Your task to perform on an android device: Search for Mexican restaurants on Maps Image 0: 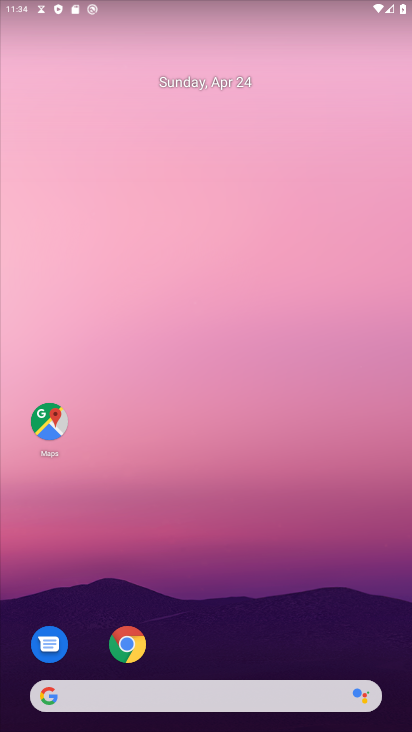
Step 0: click (50, 426)
Your task to perform on an android device: Search for Mexican restaurants on Maps Image 1: 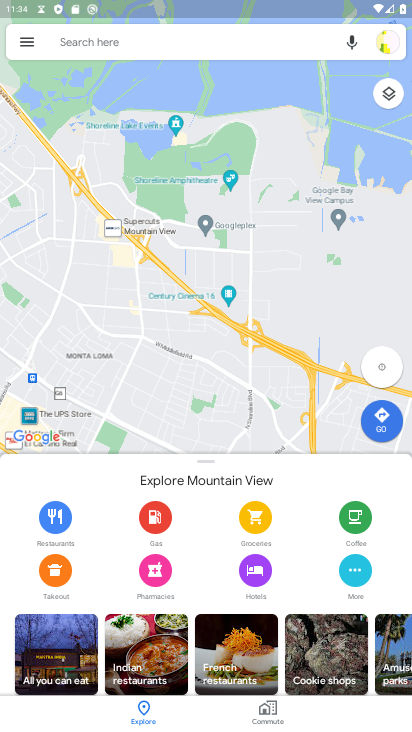
Step 1: click (108, 46)
Your task to perform on an android device: Search for Mexican restaurants on Maps Image 2: 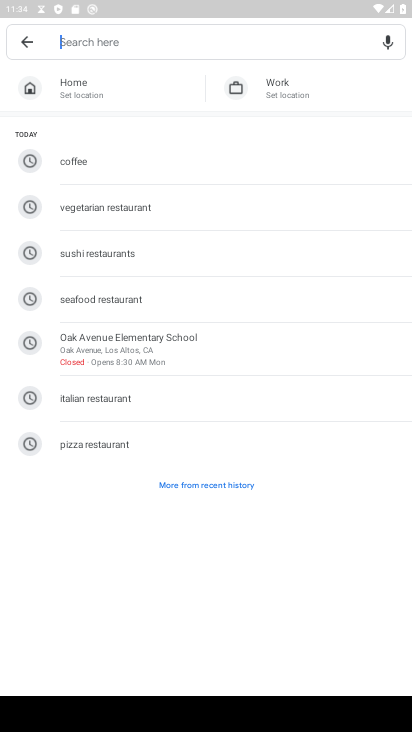
Step 2: type "mexican restaurant"
Your task to perform on an android device: Search for Mexican restaurants on Maps Image 3: 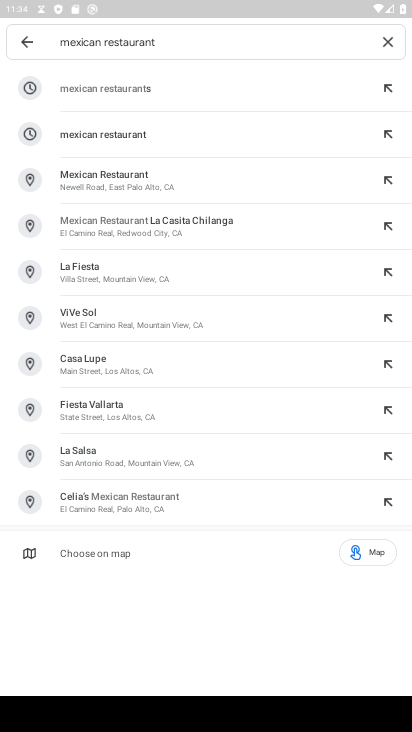
Step 3: click (106, 95)
Your task to perform on an android device: Search for Mexican restaurants on Maps Image 4: 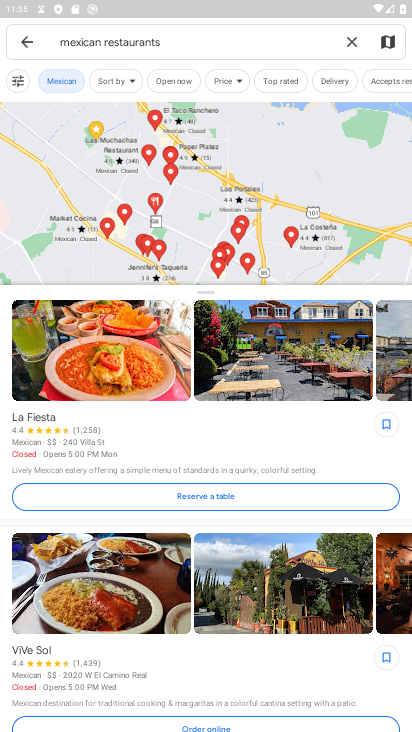
Step 4: task complete